Your task to perform on an android device: toggle location history Image 0: 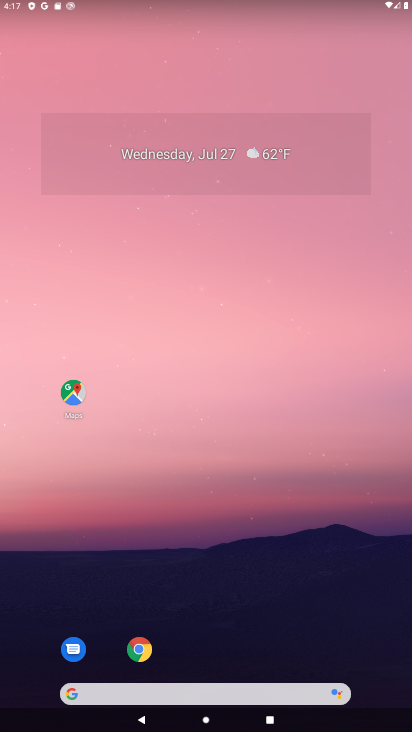
Step 0: click (144, 651)
Your task to perform on an android device: toggle location history Image 1: 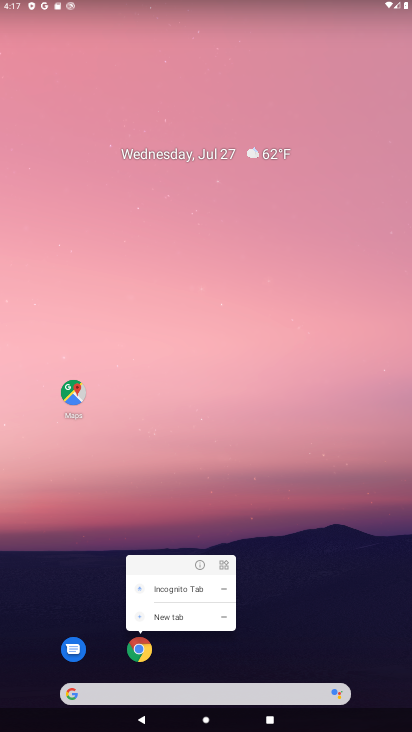
Step 1: click (141, 649)
Your task to perform on an android device: toggle location history Image 2: 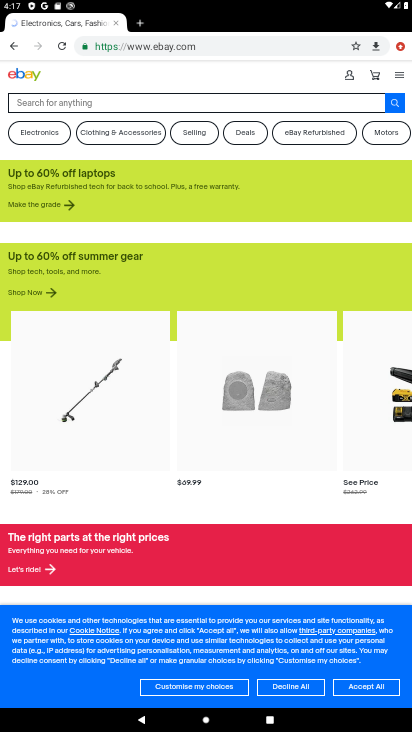
Step 2: press home button
Your task to perform on an android device: toggle location history Image 3: 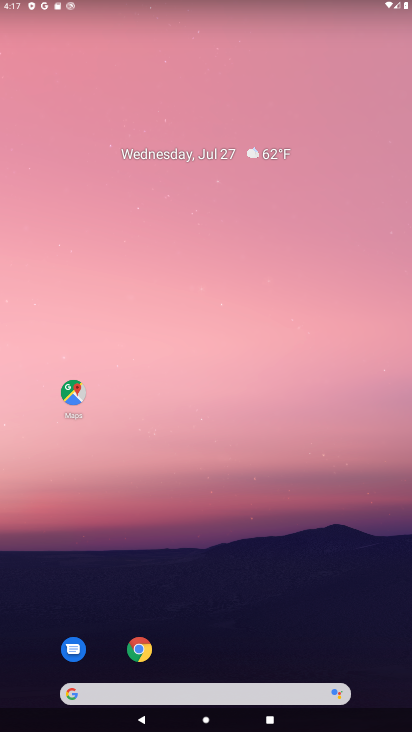
Step 3: drag from (213, 547) to (244, 214)
Your task to perform on an android device: toggle location history Image 4: 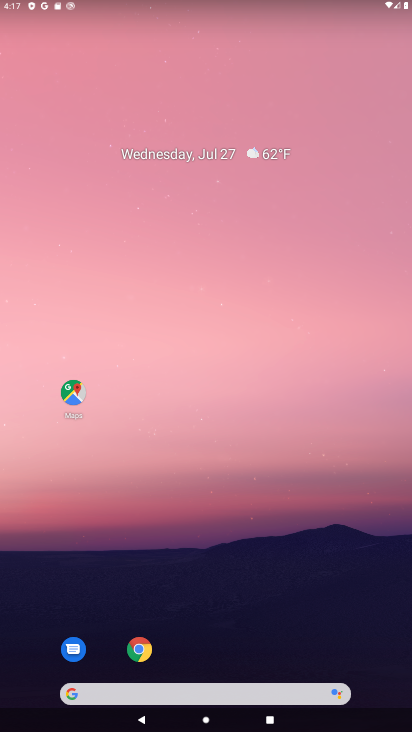
Step 4: drag from (235, 588) to (234, 201)
Your task to perform on an android device: toggle location history Image 5: 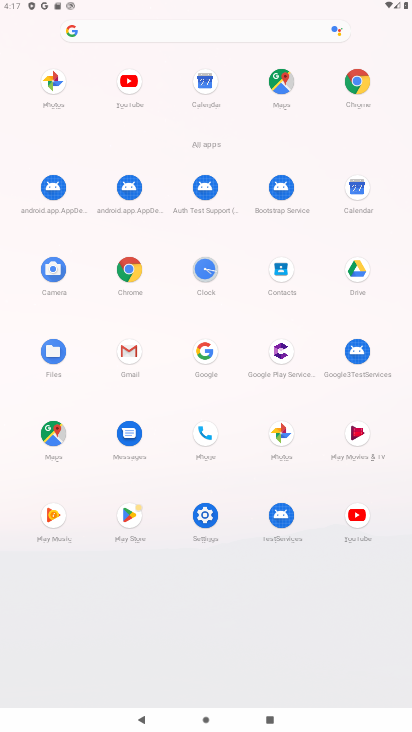
Step 5: click (210, 512)
Your task to perform on an android device: toggle location history Image 6: 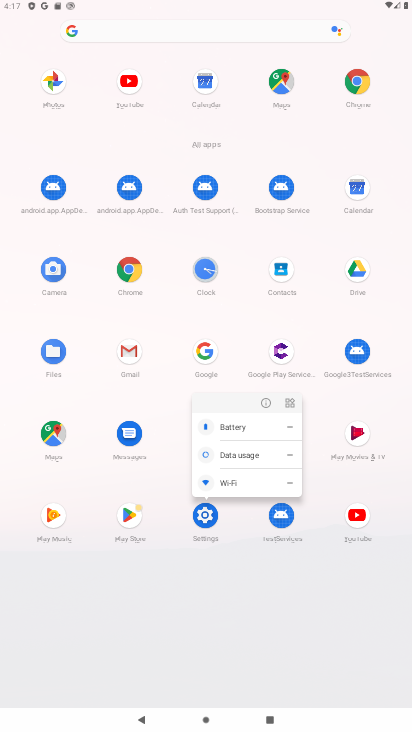
Step 6: click (197, 518)
Your task to perform on an android device: toggle location history Image 7: 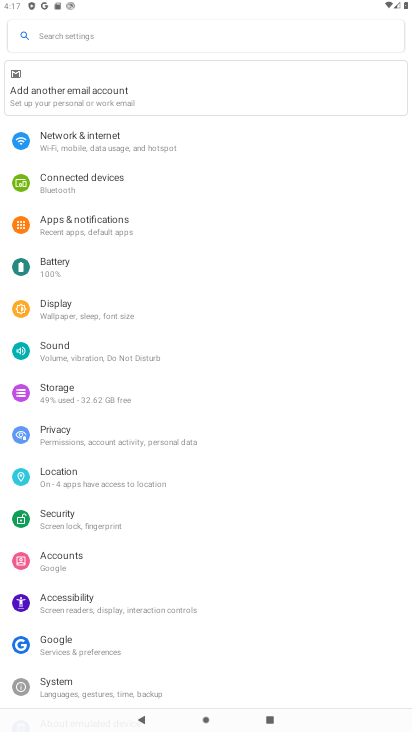
Step 7: task complete